Your task to perform on an android device: Open the map Image 0: 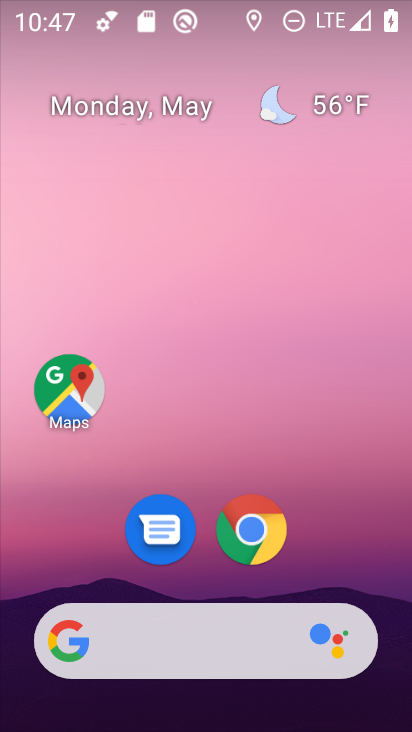
Step 0: click (57, 394)
Your task to perform on an android device: Open the map Image 1: 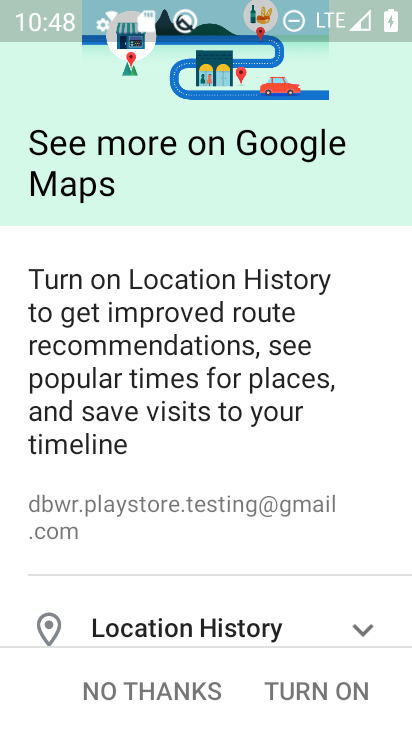
Step 1: click (295, 697)
Your task to perform on an android device: Open the map Image 2: 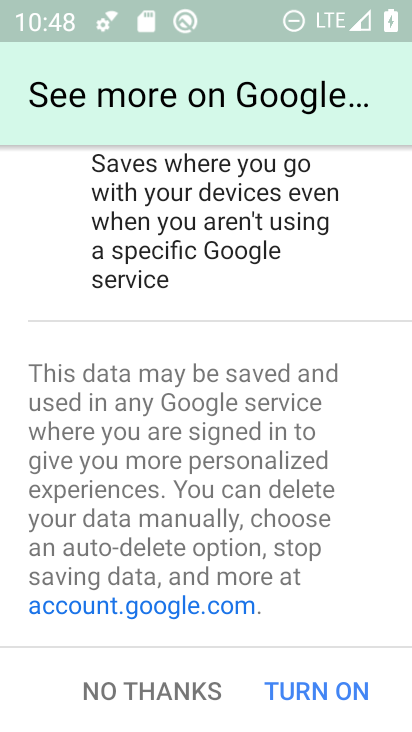
Step 2: click (295, 697)
Your task to perform on an android device: Open the map Image 3: 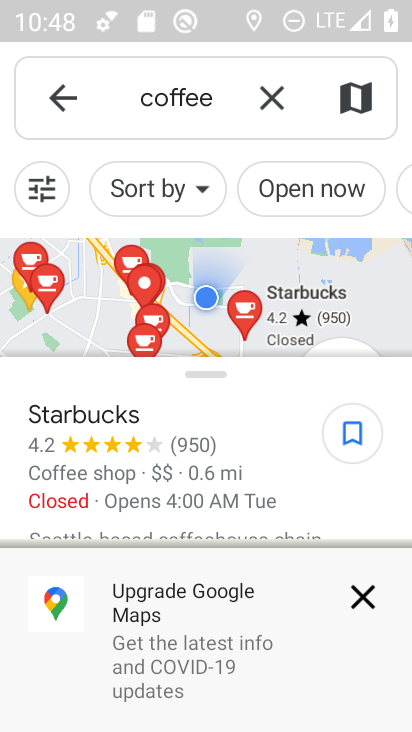
Step 3: task complete